Your task to perform on an android device: Go to location settings Image 0: 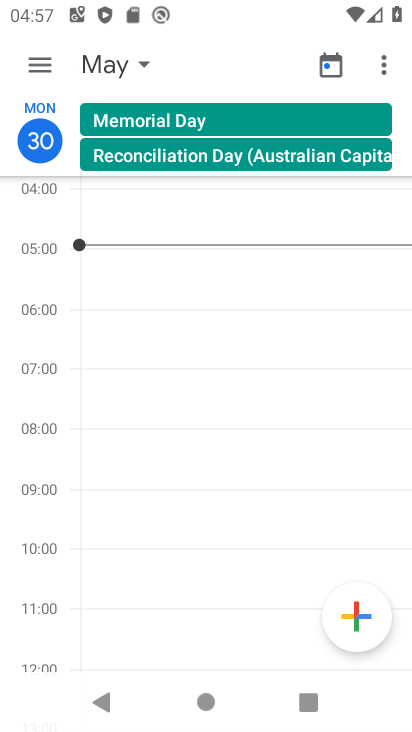
Step 0: press home button
Your task to perform on an android device: Go to location settings Image 1: 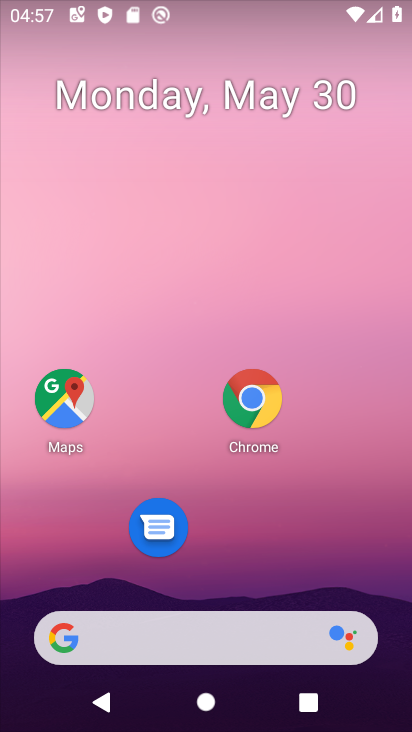
Step 1: drag from (228, 706) to (243, 71)
Your task to perform on an android device: Go to location settings Image 2: 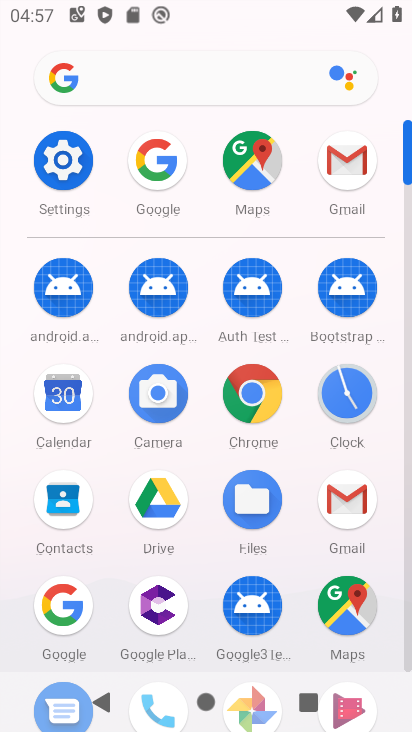
Step 2: click (65, 160)
Your task to perform on an android device: Go to location settings Image 3: 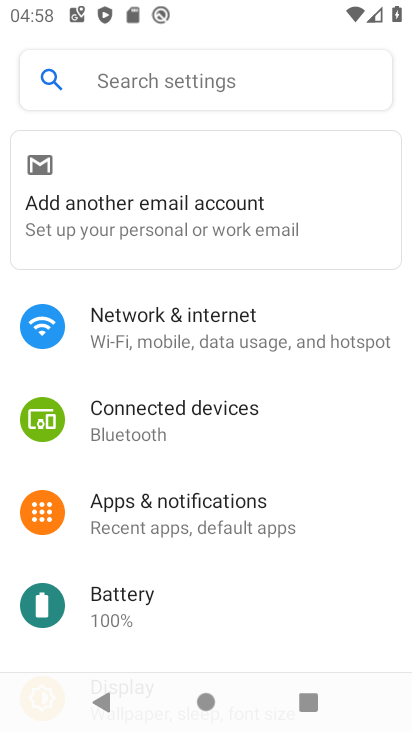
Step 3: drag from (200, 629) to (177, 240)
Your task to perform on an android device: Go to location settings Image 4: 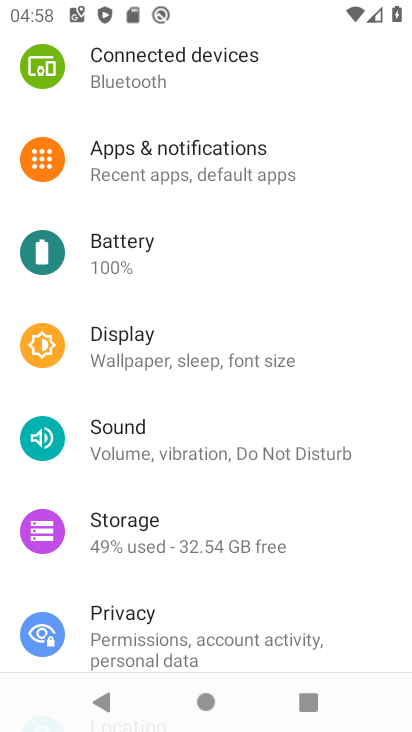
Step 4: drag from (192, 134) to (188, 495)
Your task to perform on an android device: Go to location settings Image 5: 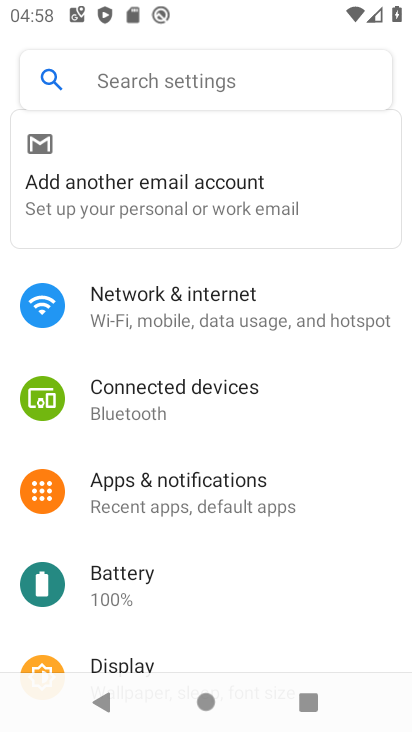
Step 5: drag from (170, 609) to (178, 431)
Your task to perform on an android device: Go to location settings Image 6: 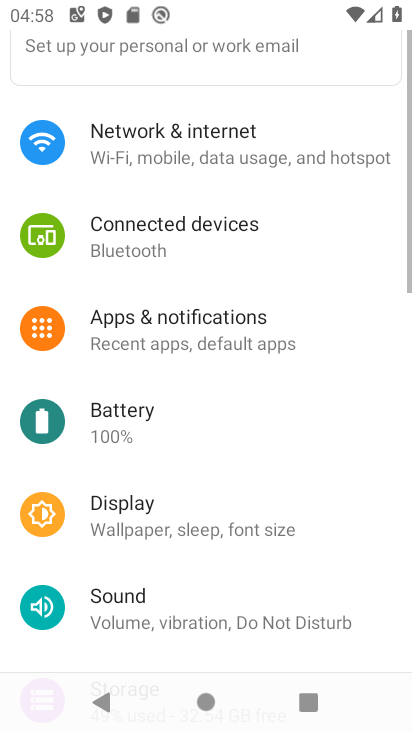
Step 6: drag from (180, 310) to (180, 208)
Your task to perform on an android device: Go to location settings Image 7: 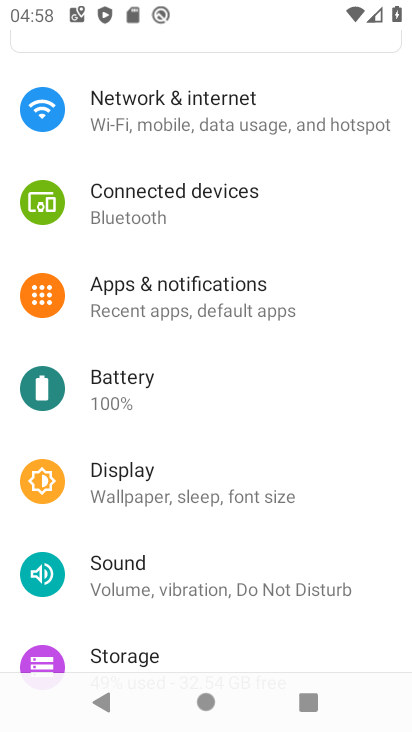
Step 7: drag from (153, 615) to (166, 150)
Your task to perform on an android device: Go to location settings Image 8: 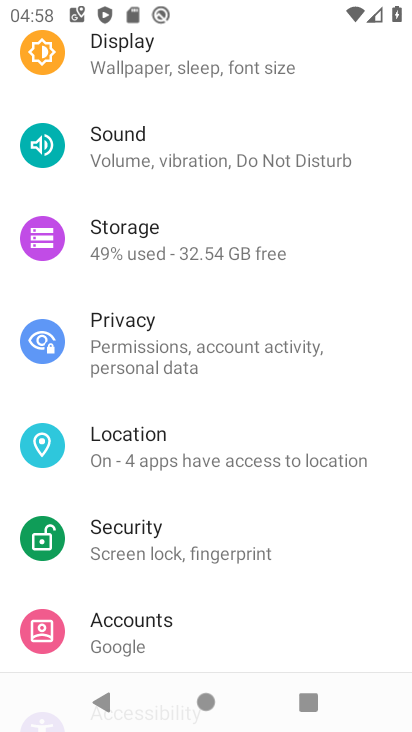
Step 8: click (133, 444)
Your task to perform on an android device: Go to location settings Image 9: 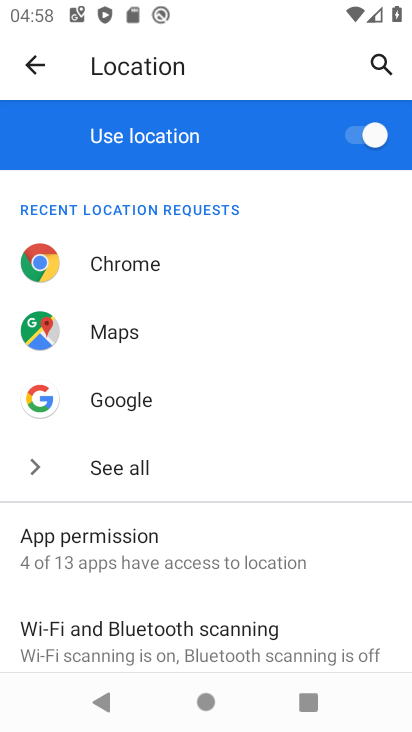
Step 9: task complete